Your task to perform on an android device: turn on bluetooth scan Image 0: 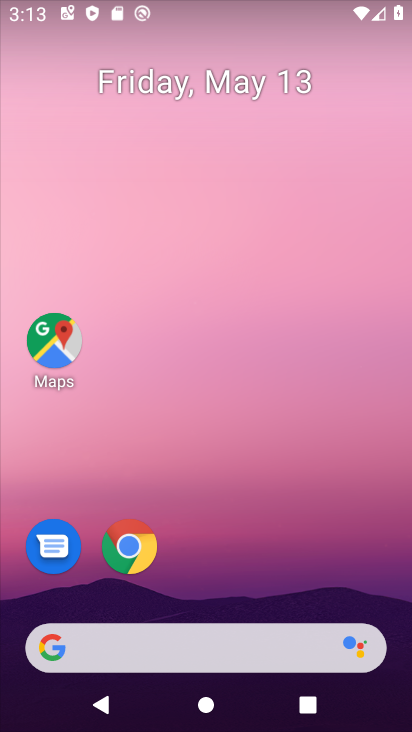
Step 0: drag from (204, 610) to (224, 190)
Your task to perform on an android device: turn on bluetooth scan Image 1: 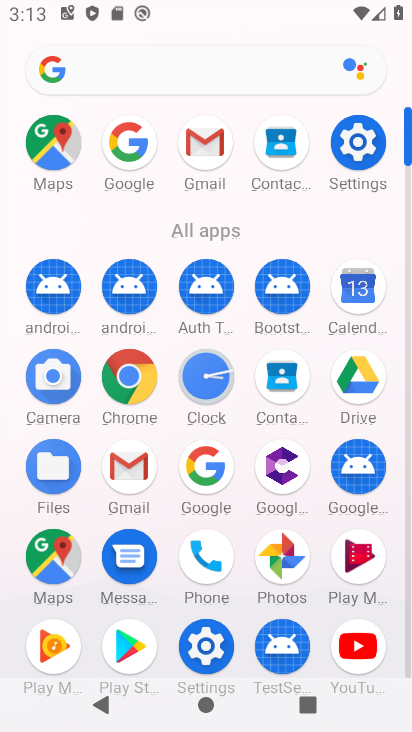
Step 1: click (374, 173)
Your task to perform on an android device: turn on bluetooth scan Image 2: 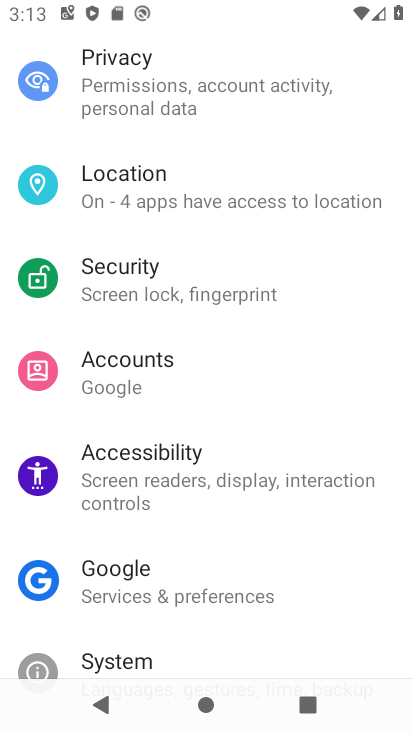
Step 2: click (238, 199)
Your task to perform on an android device: turn on bluetooth scan Image 3: 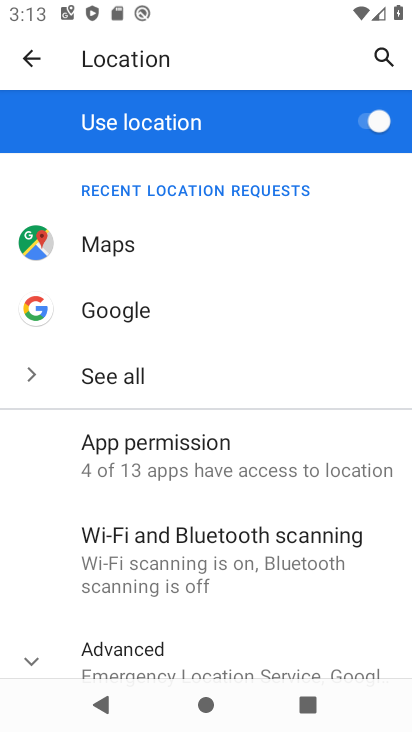
Step 3: drag from (175, 631) to (164, 207)
Your task to perform on an android device: turn on bluetooth scan Image 4: 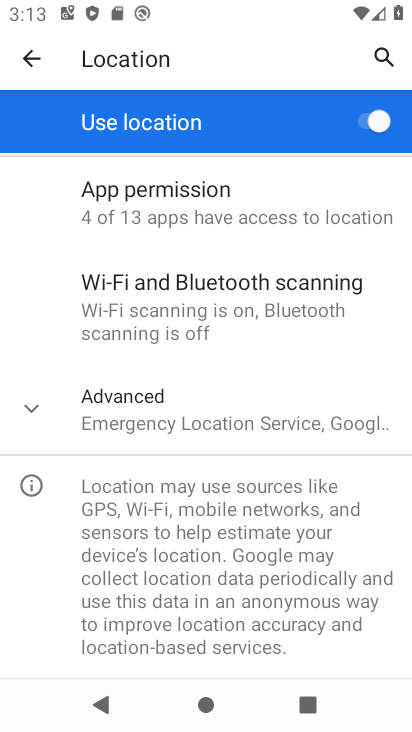
Step 4: click (139, 307)
Your task to perform on an android device: turn on bluetooth scan Image 5: 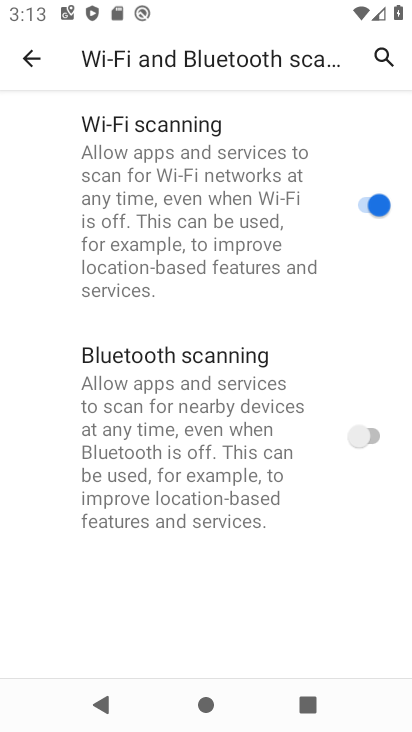
Step 5: click (355, 432)
Your task to perform on an android device: turn on bluetooth scan Image 6: 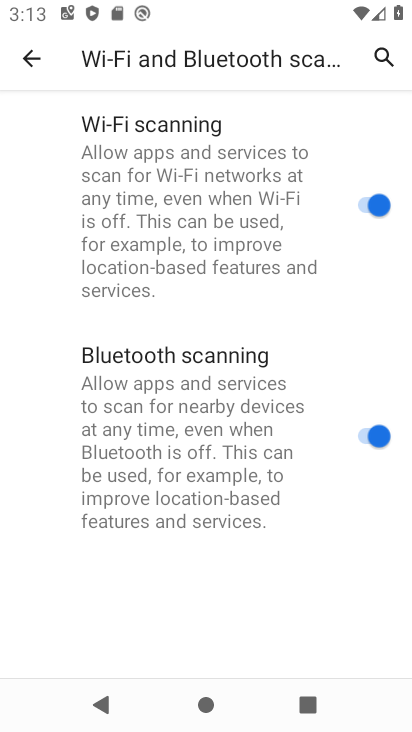
Step 6: task complete